Your task to perform on an android device: Search for the best rated circular saw on Lowes.com Image 0: 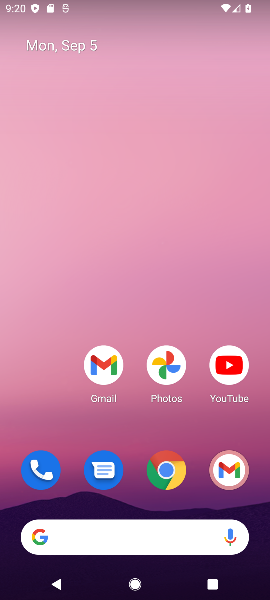
Step 0: click (139, 535)
Your task to perform on an android device: Search for the best rated circular saw on Lowes.com Image 1: 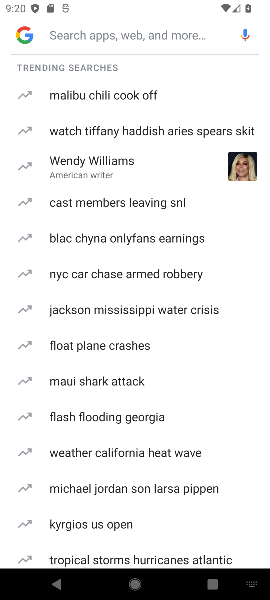
Step 1: type "lowes.com"
Your task to perform on an android device: Search for the best rated circular saw on Lowes.com Image 2: 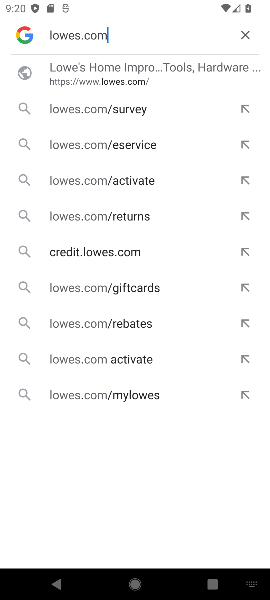
Step 2: click (75, 67)
Your task to perform on an android device: Search for the best rated circular saw on Lowes.com Image 3: 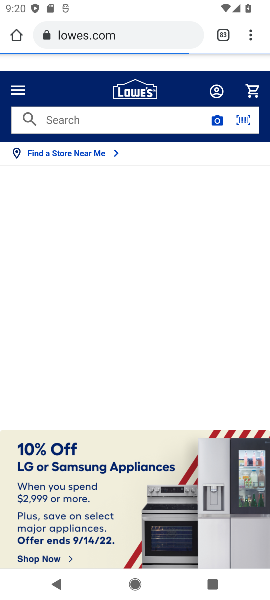
Step 3: click (81, 119)
Your task to perform on an android device: Search for the best rated circular saw on Lowes.com Image 4: 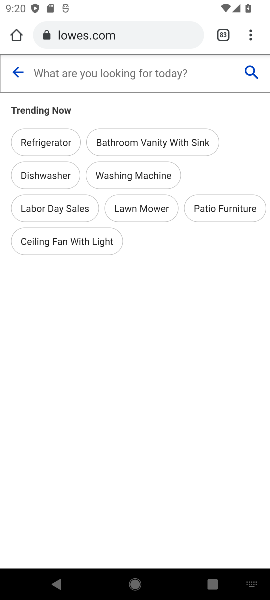
Step 4: type "best rated circular saw"
Your task to perform on an android device: Search for the best rated circular saw on Lowes.com Image 5: 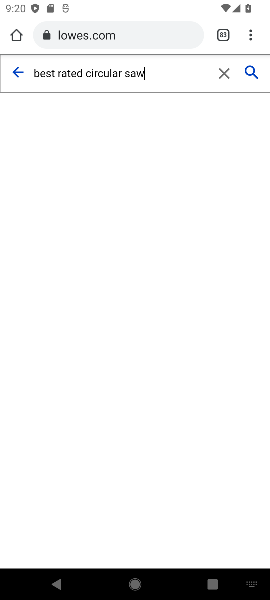
Step 5: click (251, 69)
Your task to perform on an android device: Search for the best rated circular saw on Lowes.com Image 6: 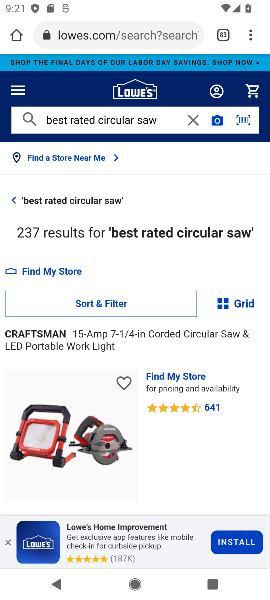
Step 6: task complete